Your task to perform on an android device: see creations saved in the google photos Image 0: 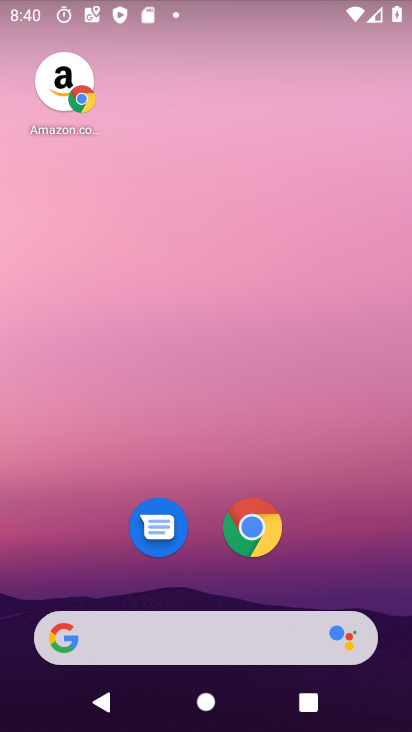
Step 0: drag from (318, 580) to (290, 22)
Your task to perform on an android device: see creations saved in the google photos Image 1: 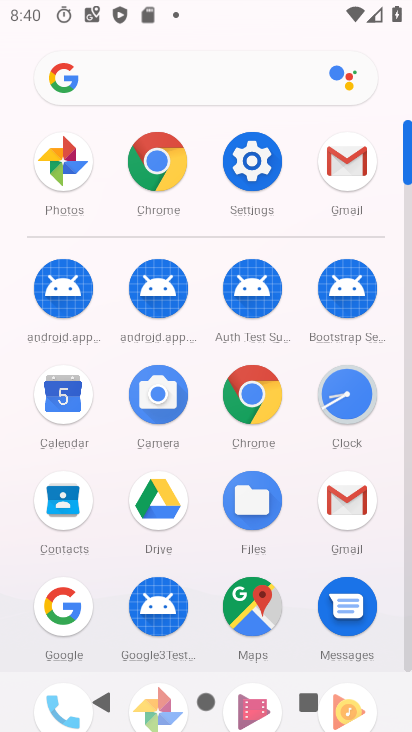
Step 1: click (59, 163)
Your task to perform on an android device: see creations saved in the google photos Image 2: 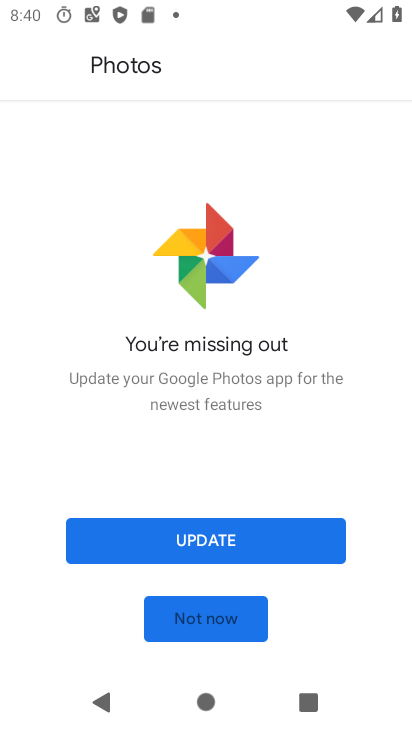
Step 2: click (188, 544)
Your task to perform on an android device: see creations saved in the google photos Image 3: 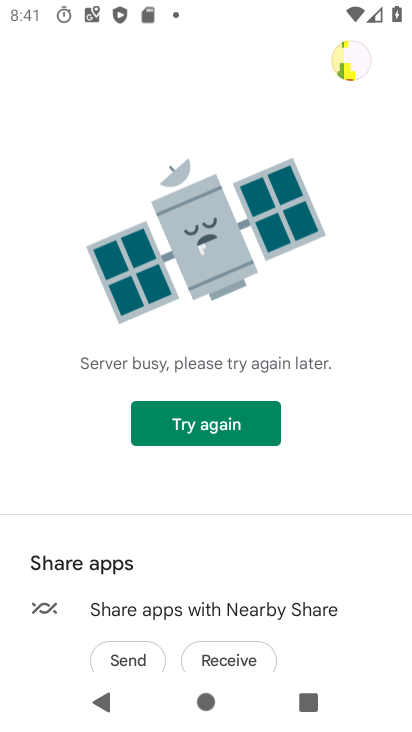
Step 3: click (188, 434)
Your task to perform on an android device: see creations saved in the google photos Image 4: 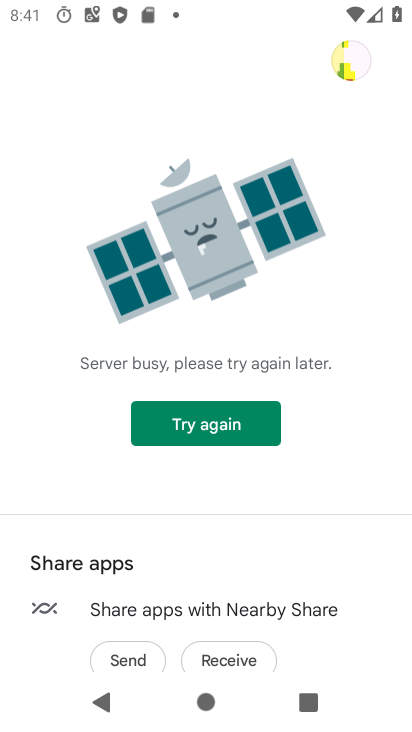
Step 4: task complete